Your task to perform on an android device: find snoozed emails in the gmail app Image 0: 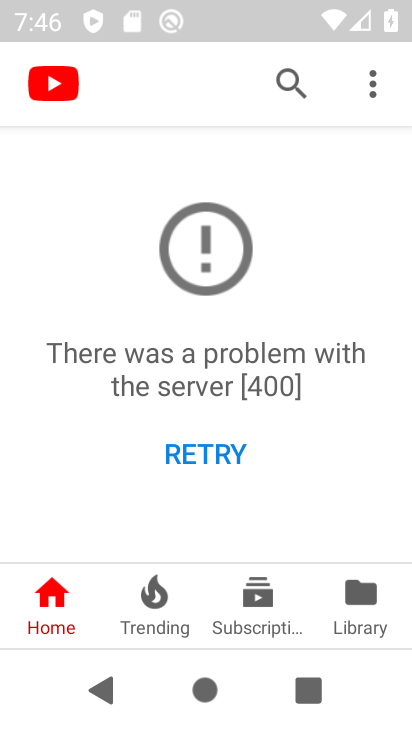
Step 0: click (294, 479)
Your task to perform on an android device: find snoozed emails in the gmail app Image 1: 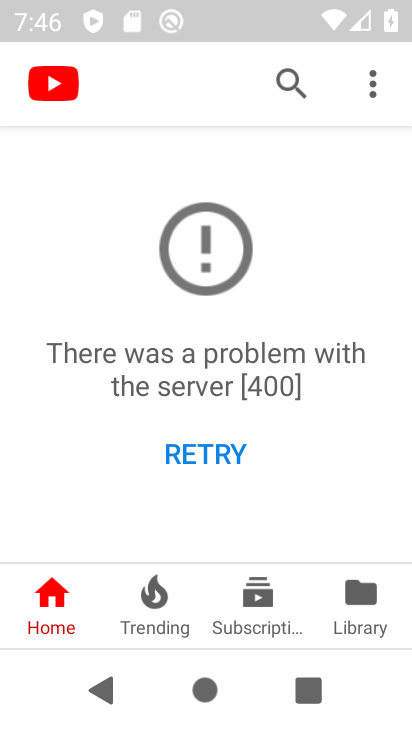
Step 1: press home button
Your task to perform on an android device: find snoozed emails in the gmail app Image 2: 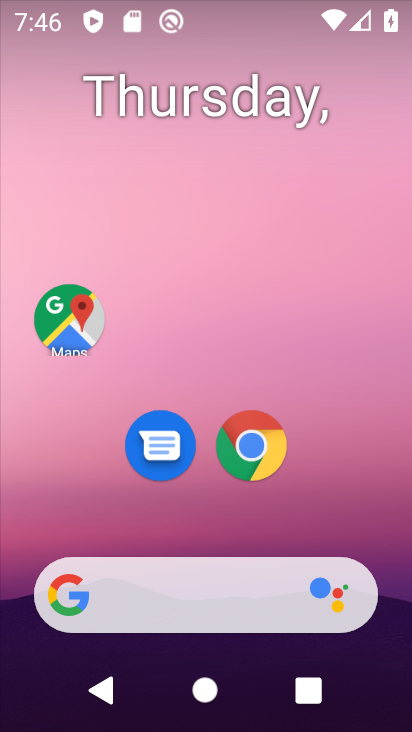
Step 2: drag from (226, 481) to (214, 26)
Your task to perform on an android device: find snoozed emails in the gmail app Image 3: 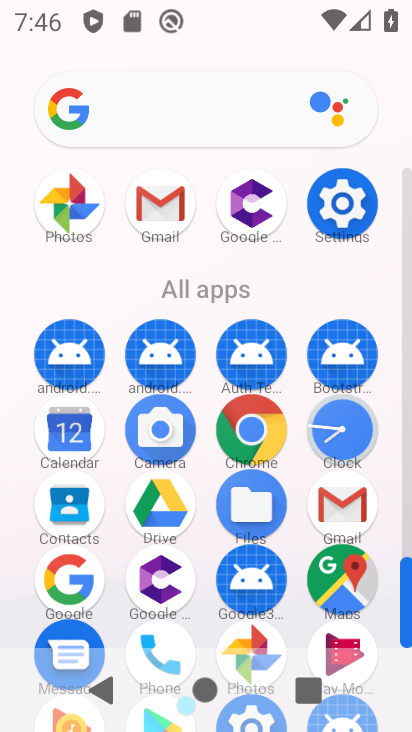
Step 3: click (344, 503)
Your task to perform on an android device: find snoozed emails in the gmail app Image 4: 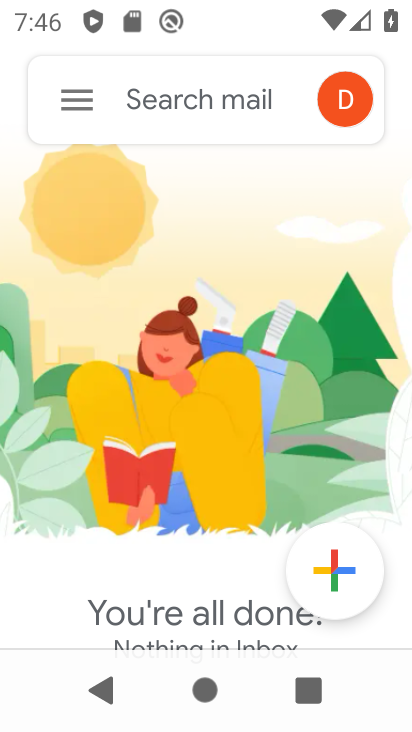
Step 4: click (67, 91)
Your task to perform on an android device: find snoozed emails in the gmail app Image 5: 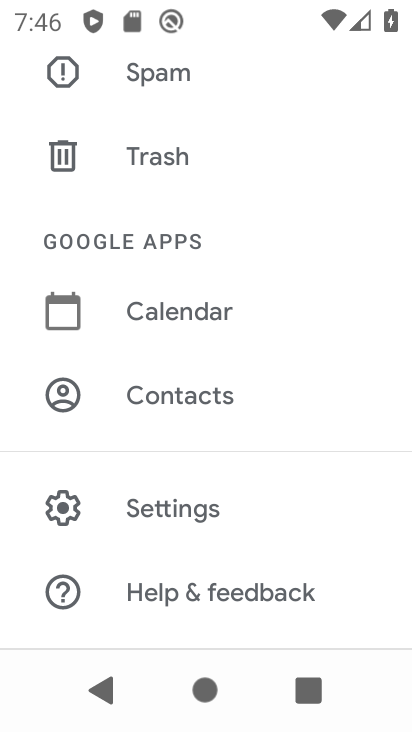
Step 5: drag from (228, 163) to (330, 731)
Your task to perform on an android device: find snoozed emails in the gmail app Image 6: 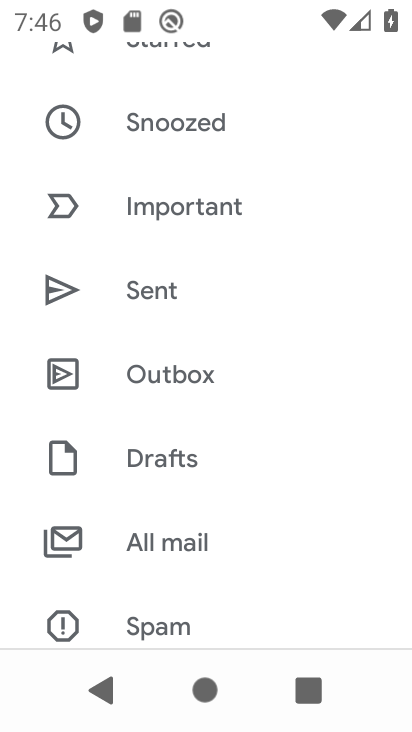
Step 6: click (210, 136)
Your task to perform on an android device: find snoozed emails in the gmail app Image 7: 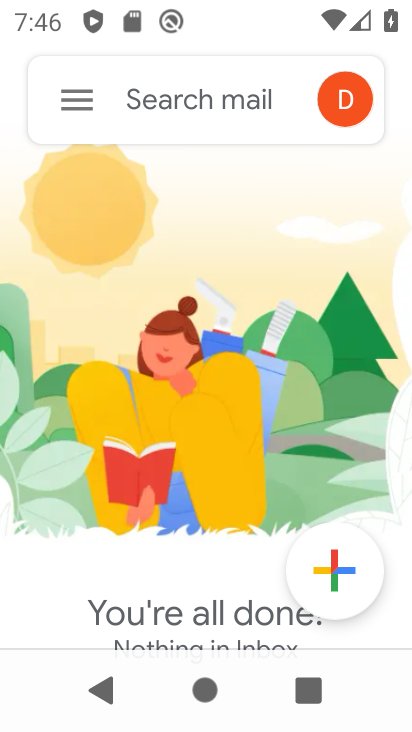
Step 7: task complete